Your task to perform on an android device: Open Youtube and go to the subscriptions tab Image 0: 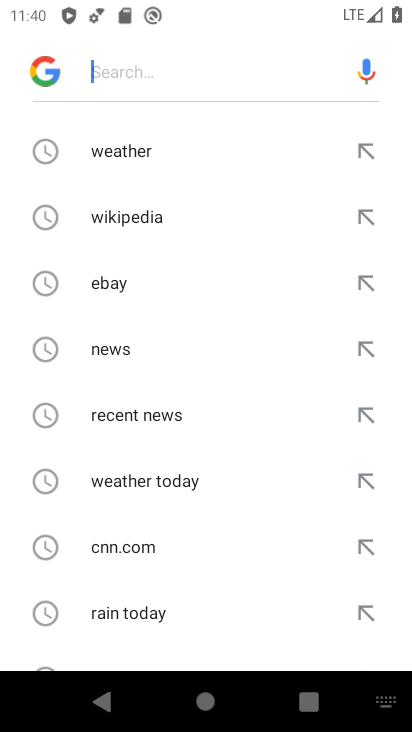
Step 0: press back button
Your task to perform on an android device: Open Youtube and go to the subscriptions tab Image 1: 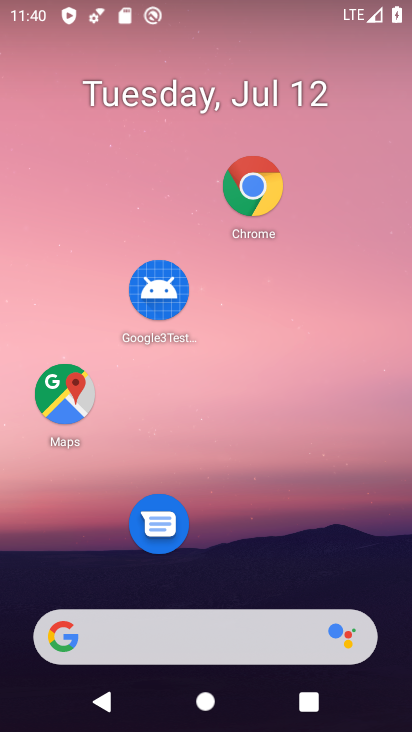
Step 1: drag from (233, 587) to (67, 21)
Your task to perform on an android device: Open Youtube and go to the subscriptions tab Image 2: 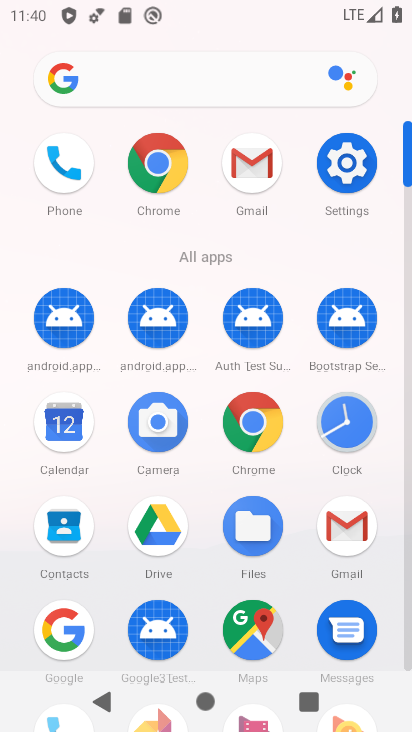
Step 2: drag from (119, 630) to (120, 298)
Your task to perform on an android device: Open Youtube and go to the subscriptions tab Image 3: 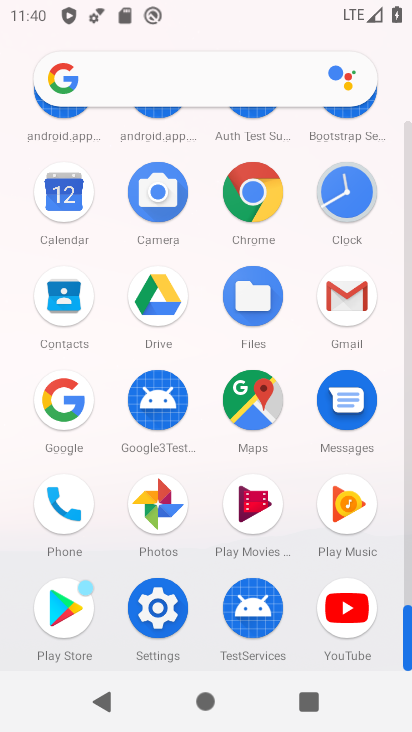
Step 3: click (340, 632)
Your task to perform on an android device: Open Youtube and go to the subscriptions tab Image 4: 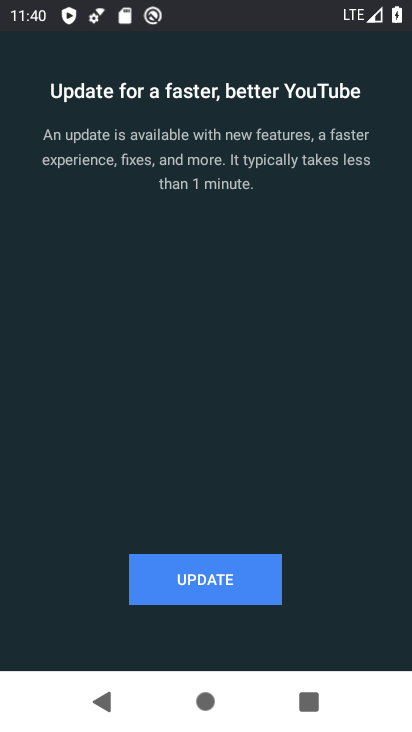
Step 4: click (229, 562)
Your task to perform on an android device: Open Youtube and go to the subscriptions tab Image 5: 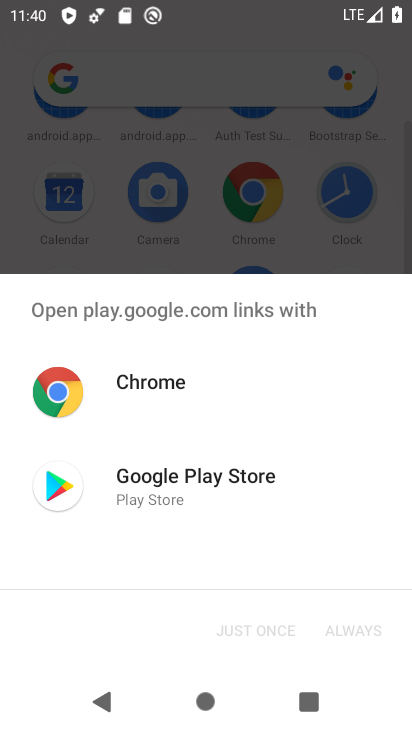
Step 5: click (220, 495)
Your task to perform on an android device: Open Youtube and go to the subscriptions tab Image 6: 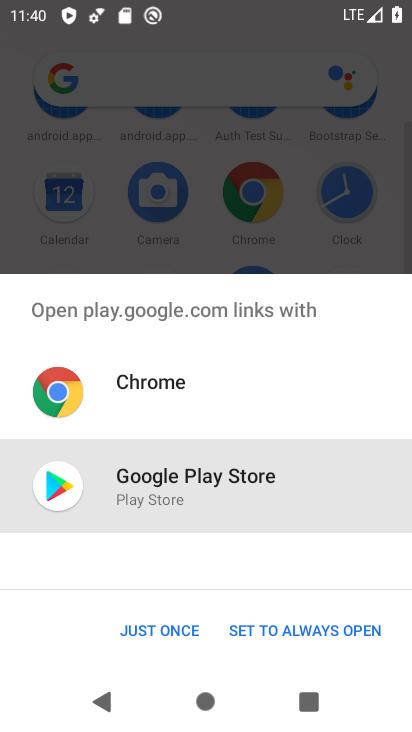
Step 6: click (157, 631)
Your task to perform on an android device: Open Youtube and go to the subscriptions tab Image 7: 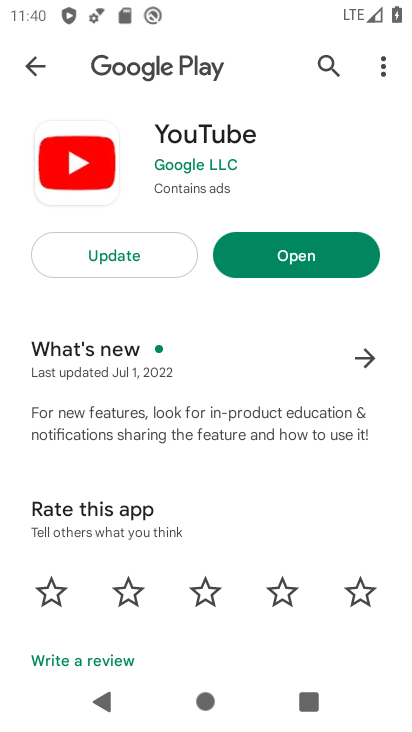
Step 7: click (136, 259)
Your task to perform on an android device: Open Youtube and go to the subscriptions tab Image 8: 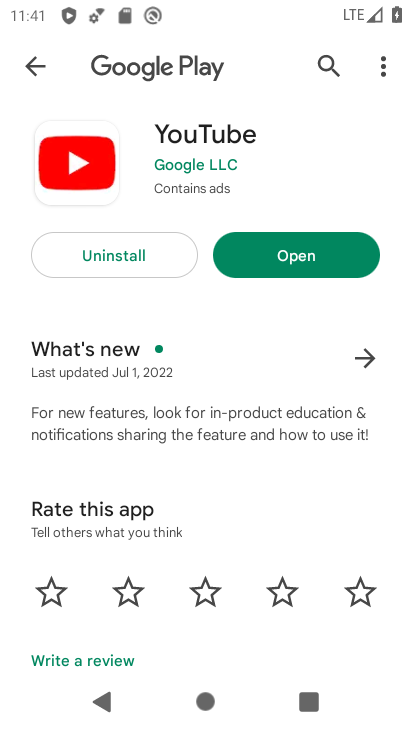
Step 8: click (292, 248)
Your task to perform on an android device: Open Youtube and go to the subscriptions tab Image 9: 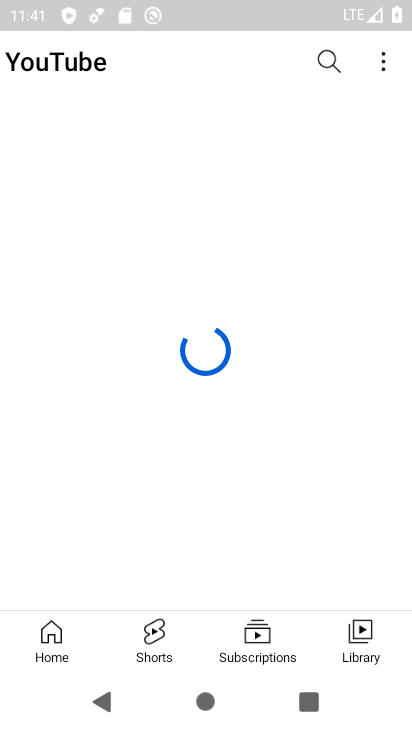
Step 9: click (250, 636)
Your task to perform on an android device: Open Youtube and go to the subscriptions tab Image 10: 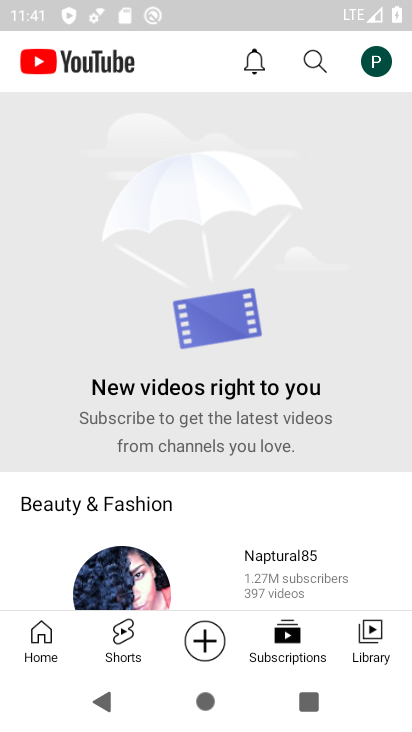
Step 10: task complete